Your task to perform on an android device: uninstall "Calculator" Image 0: 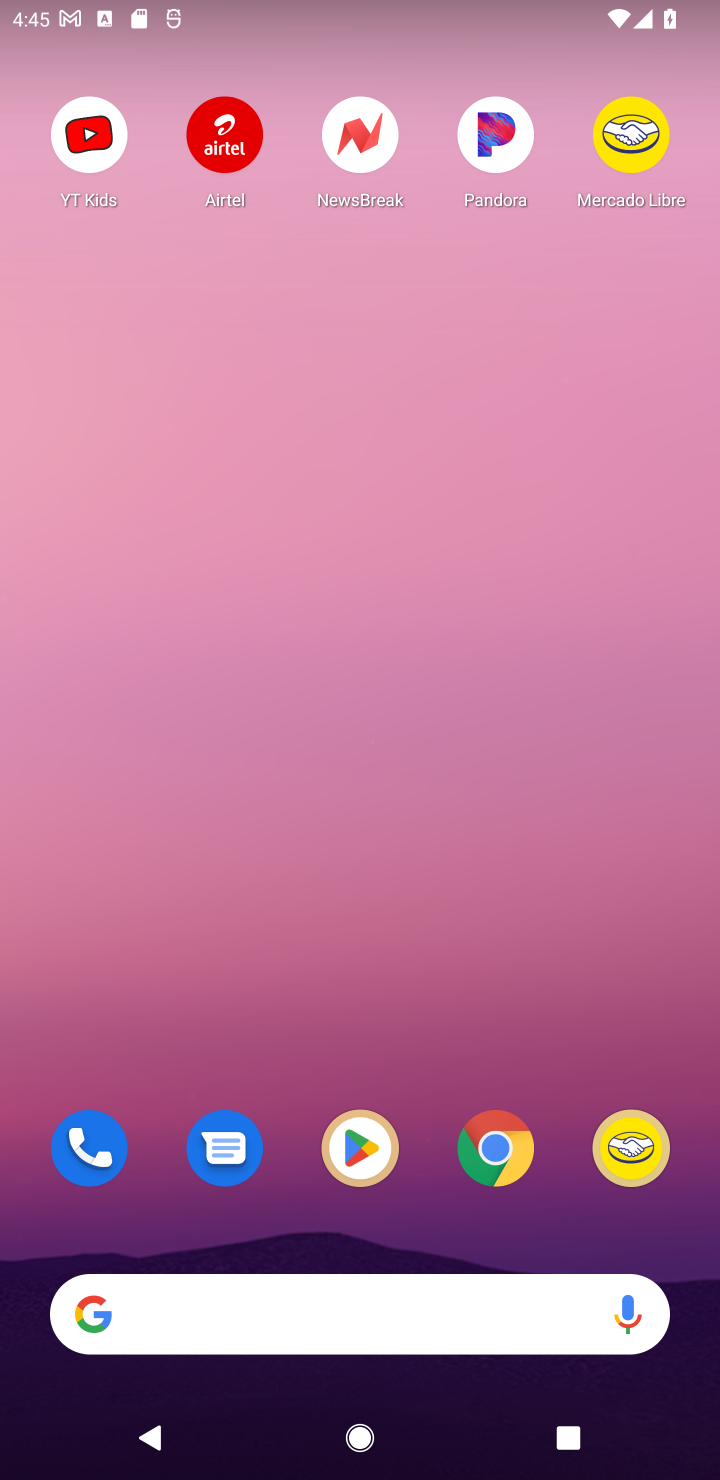
Step 0: click (355, 1151)
Your task to perform on an android device: uninstall "Calculator" Image 1: 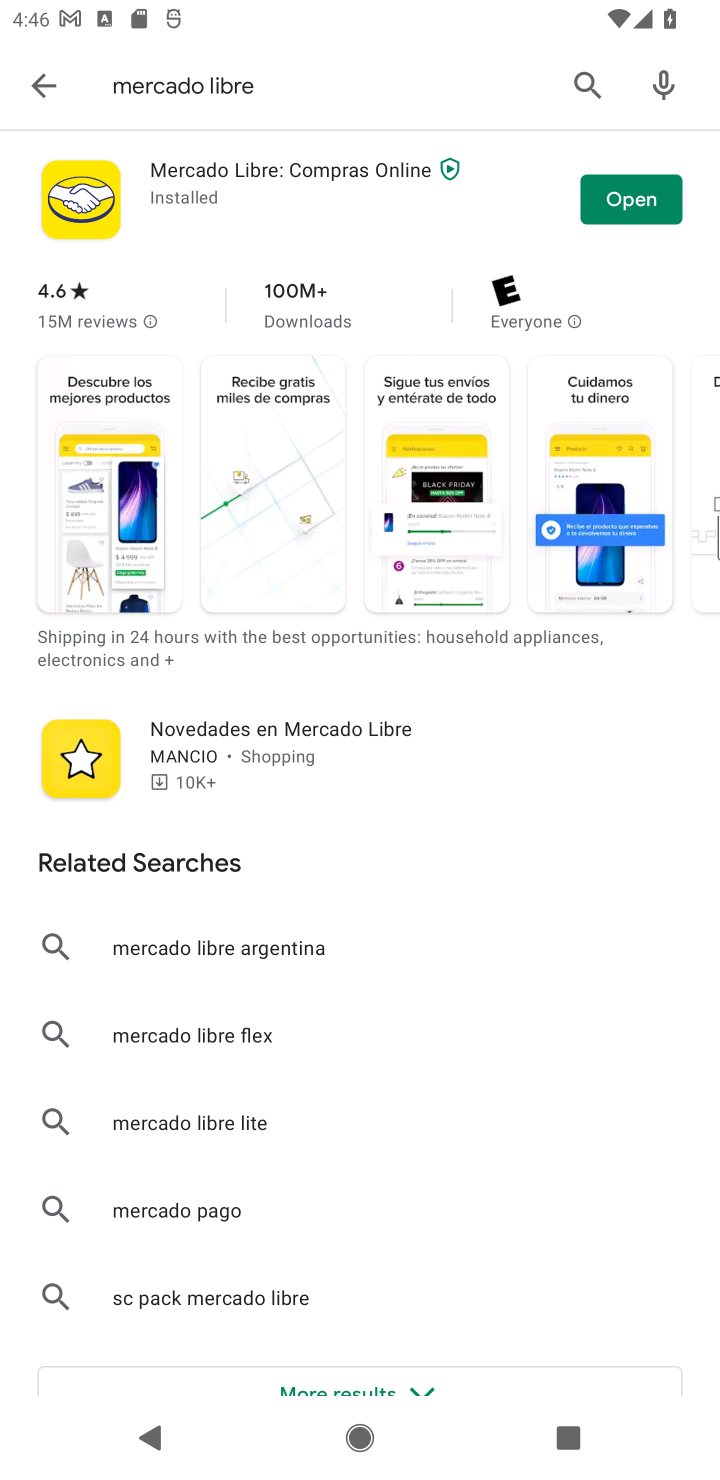
Step 1: click (577, 81)
Your task to perform on an android device: uninstall "Calculator" Image 2: 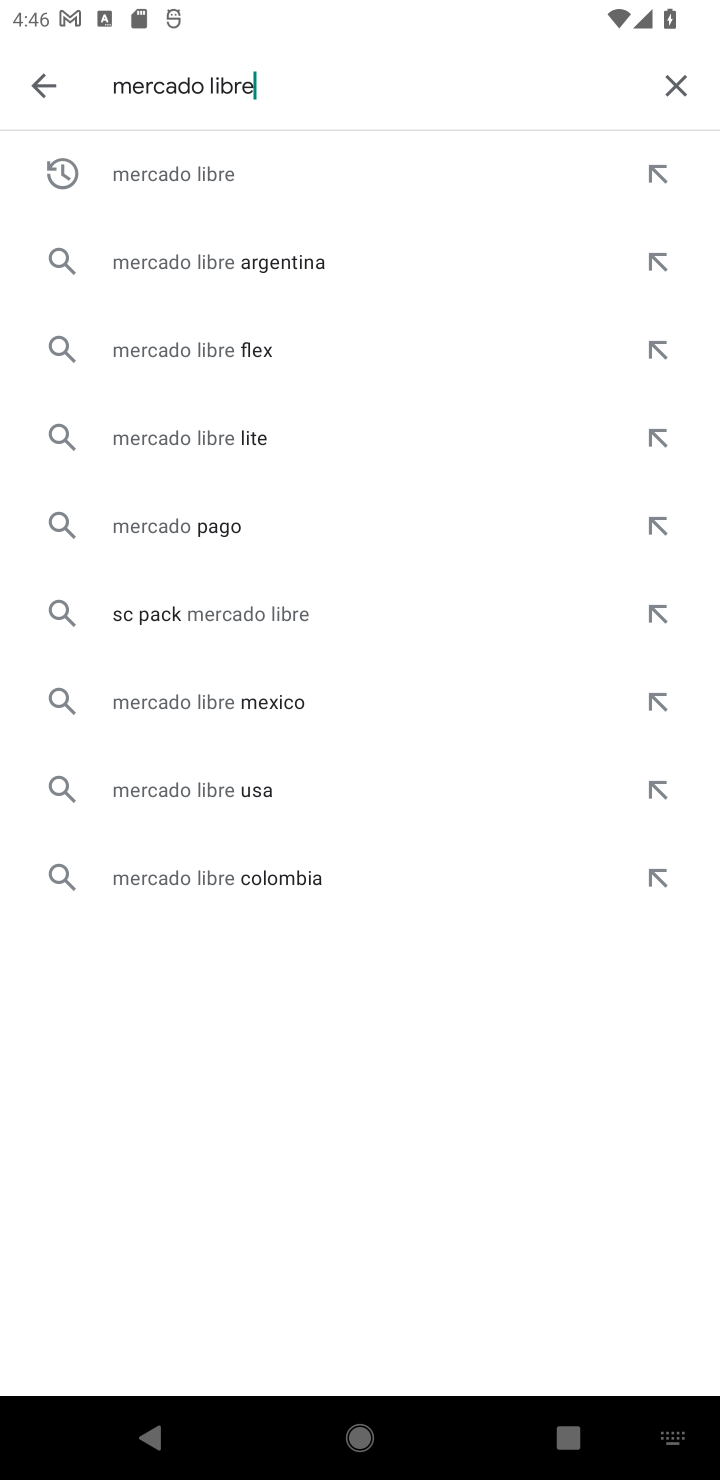
Step 2: click (673, 70)
Your task to perform on an android device: uninstall "Calculator" Image 3: 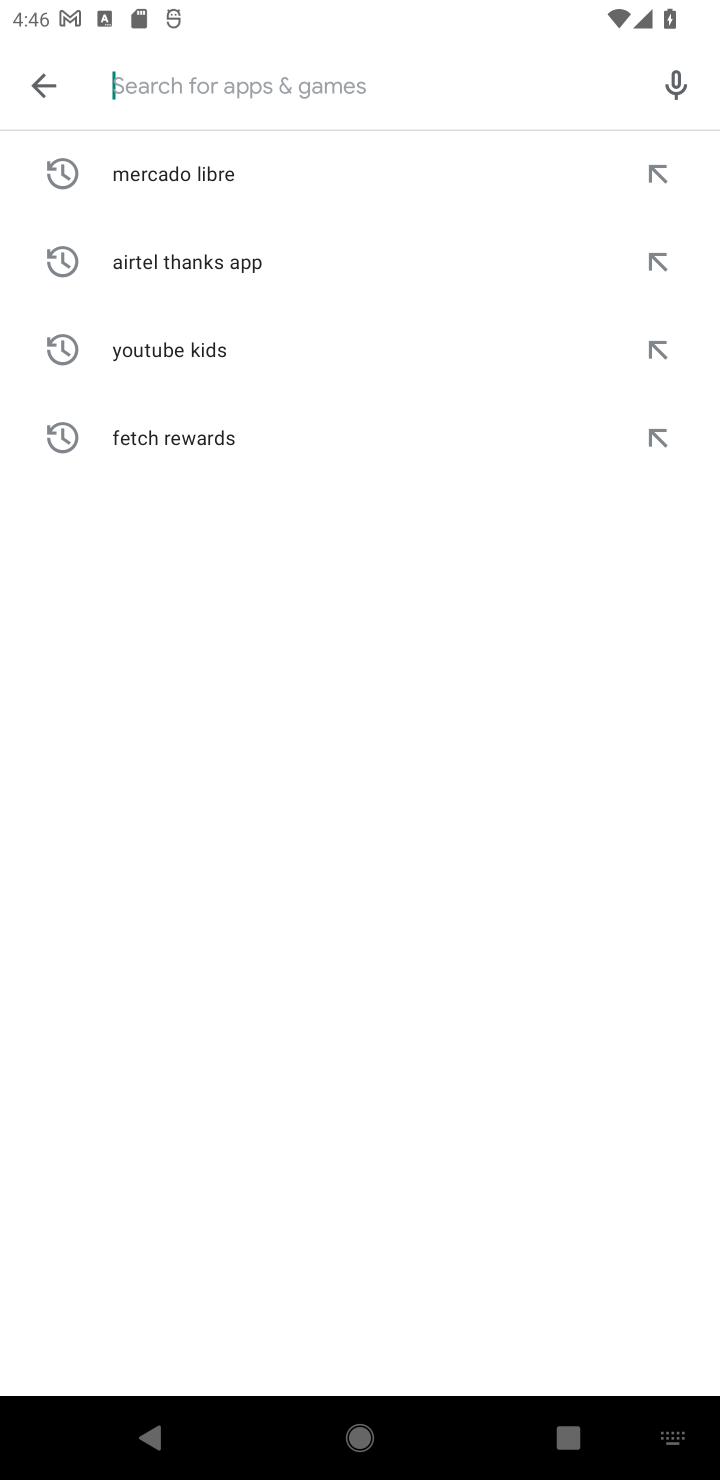
Step 3: type "Calculato"
Your task to perform on an android device: uninstall "Calculator" Image 4: 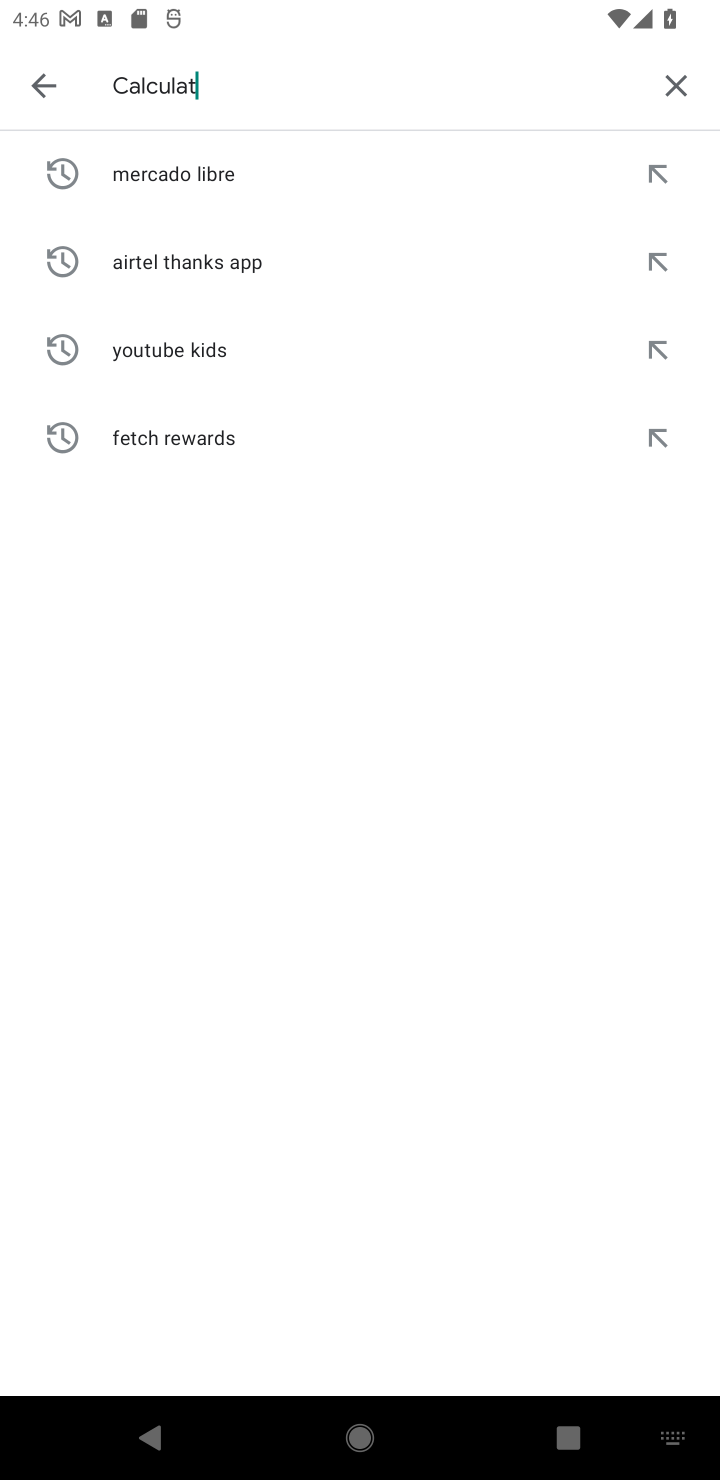
Step 4: type ""
Your task to perform on an android device: uninstall "Calculator" Image 5: 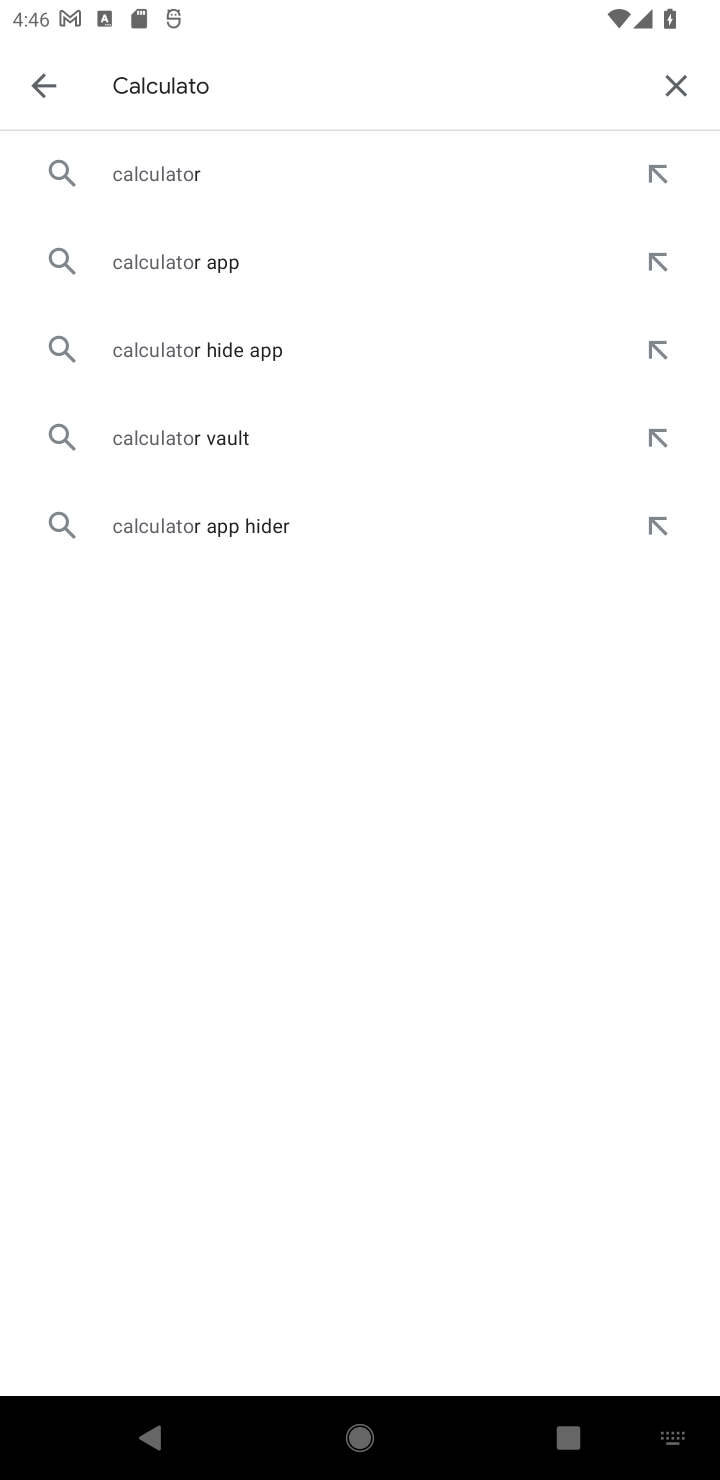
Step 5: click (140, 165)
Your task to perform on an android device: uninstall "Calculator" Image 6: 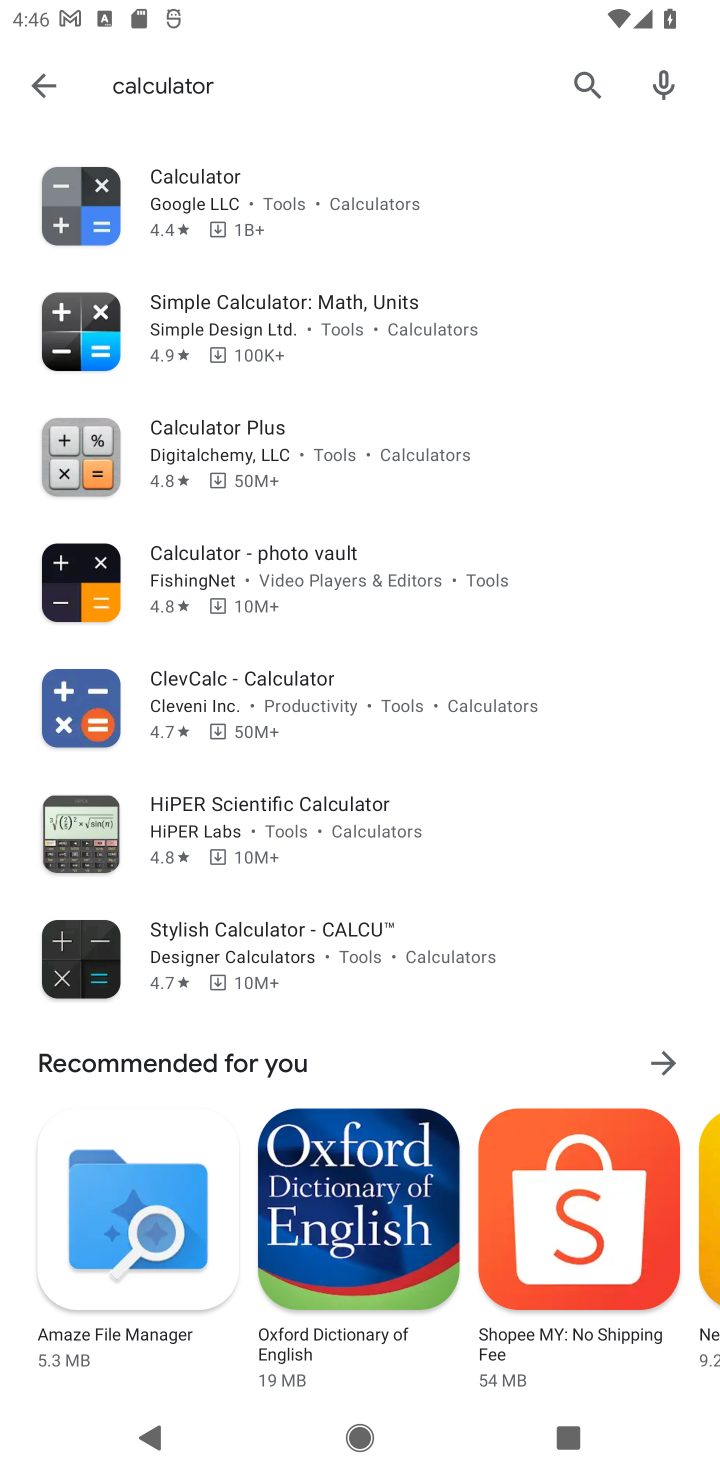
Step 6: click (260, 169)
Your task to perform on an android device: uninstall "Calculator" Image 7: 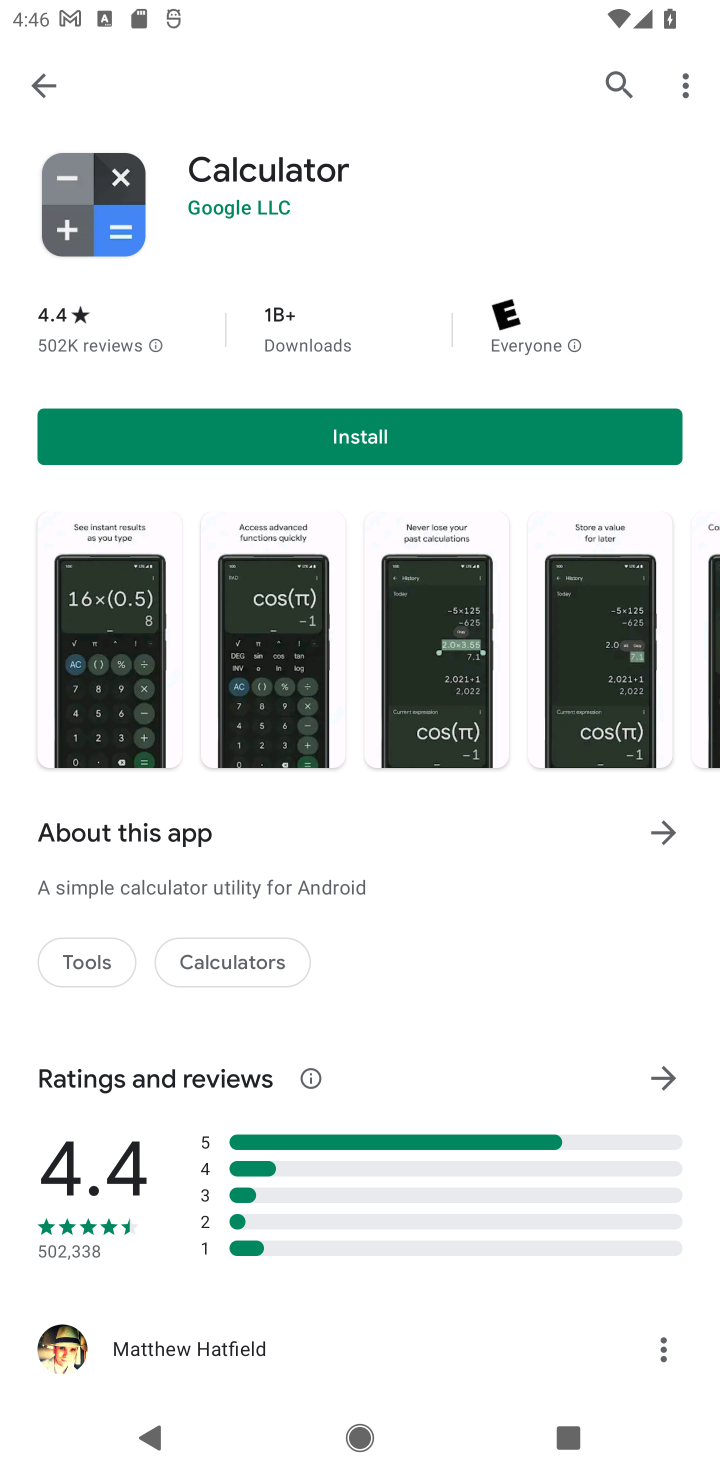
Step 7: task complete